Your task to perform on an android device: Show me productivity apps on the Play Store Image 0: 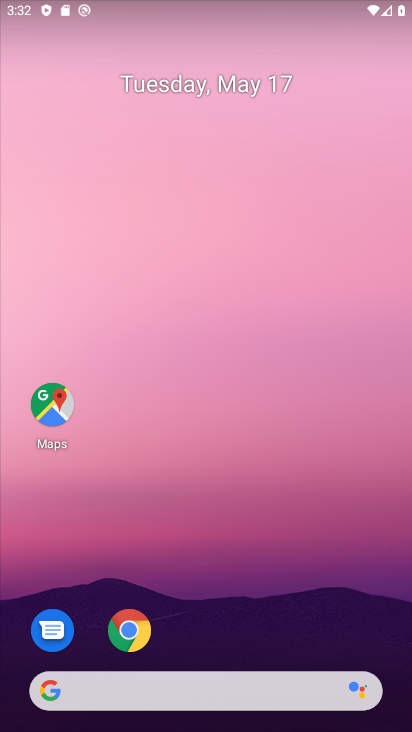
Step 0: drag from (181, 671) to (297, 233)
Your task to perform on an android device: Show me productivity apps on the Play Store Image 1: 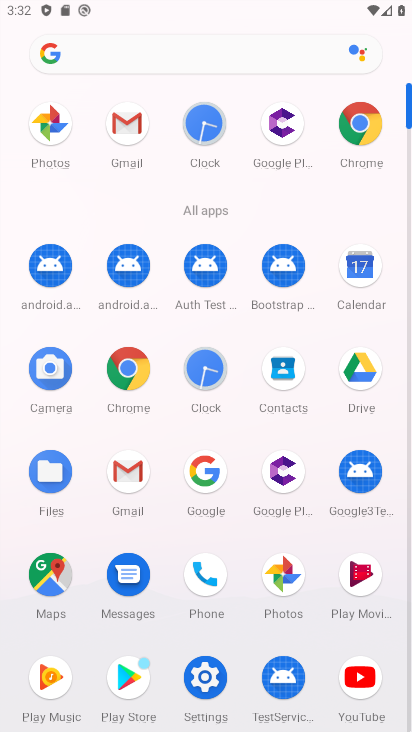
Step 1: click (129, 682)
Your task to perform on an android device: Show me productivity apps on the Play Store Image 2: 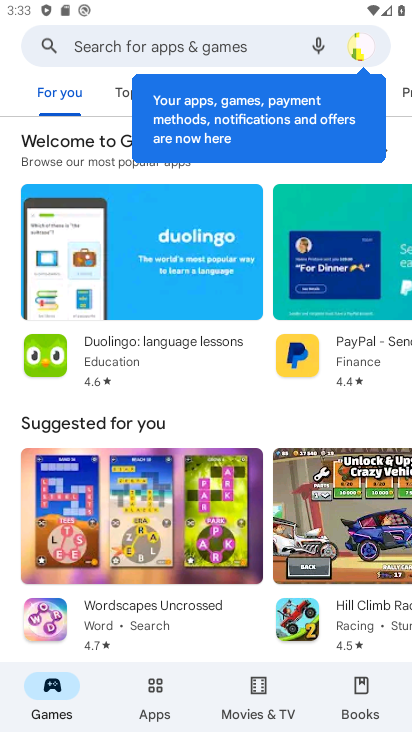
Step 2: click (166, 704)
Your task to perform on an android device: Show me productivity apps on the Play Store Image 3: 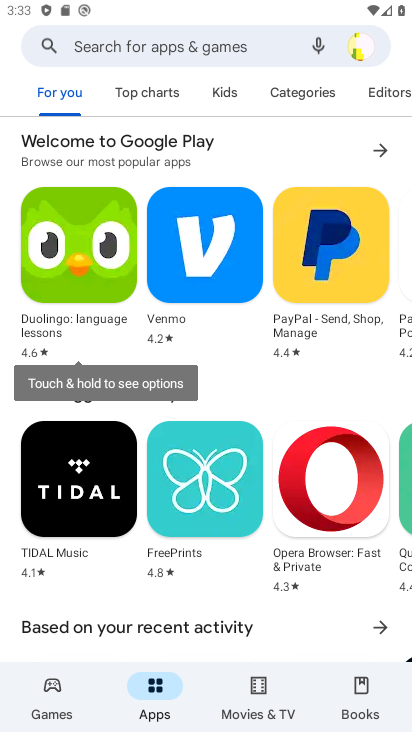
Step 3: drag from (354, 105) to (300, 101)
Your task to perform on an android device: Show me productivity apps on the Play Store Image 4: 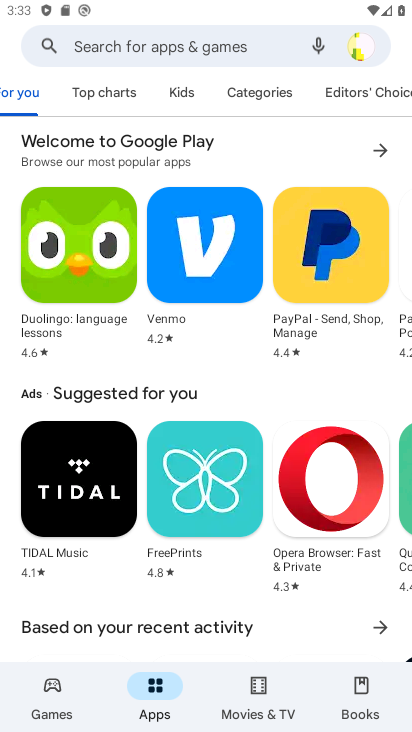
Step 4: click (292, 106)
Your task to perform on an android device: Show me productivity apps on the Play Store Image 5: 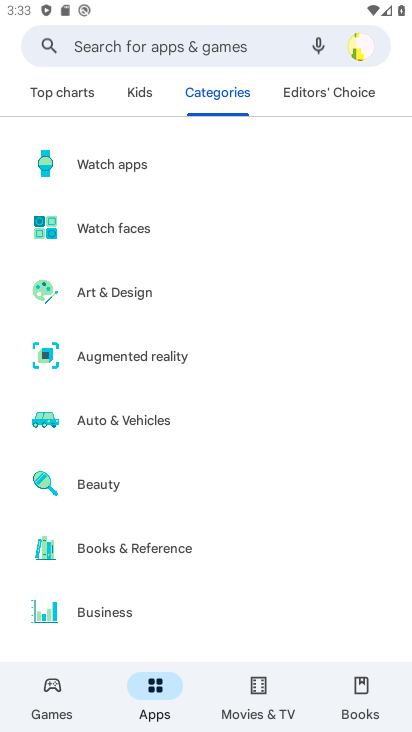
Step 5: drag from (180, 542) to (279, 146)
Your task to perform on an android device: Show me productivity apps on the Play Store Image 6: 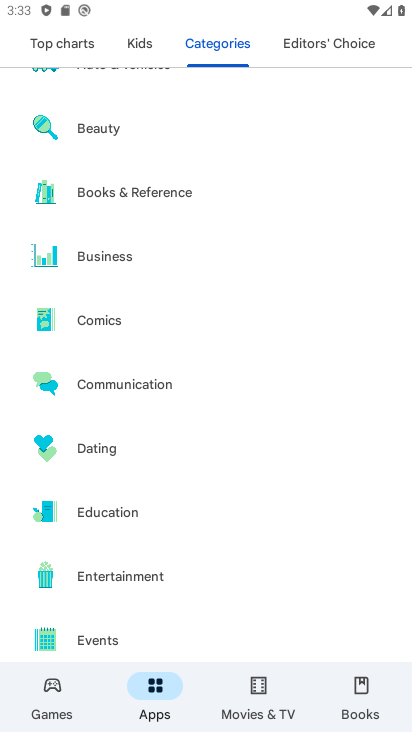
Step 6: drag from (249, 460) to (319, 106)
Your task to perform on an android device: Show me productivity apps on the Play Store Image 7: 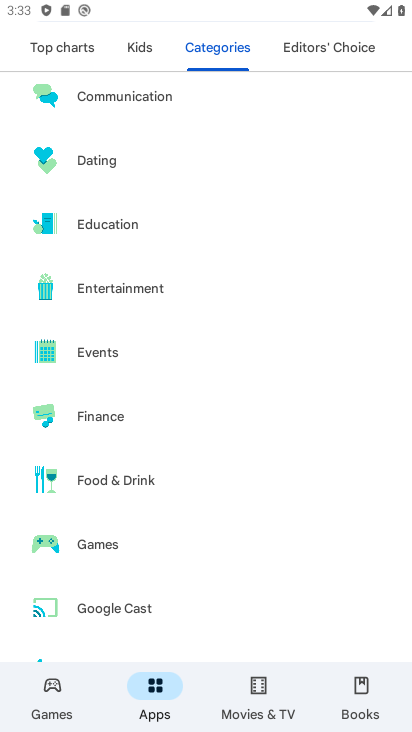
Step 7: drag from (185, 527) to (277, 193)
Your task to perform on an android device: Show me productivity apps on the Play Store Image 8: 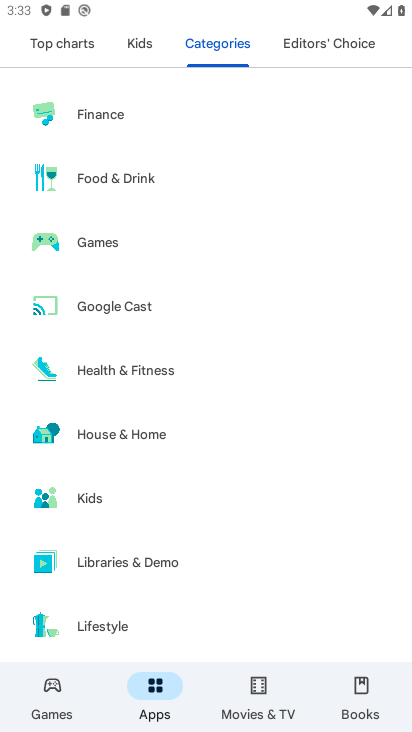
Step 8: drag from (176, 531) to (249, 139)
Your task to perform on an android device: Show me productivity apps on the Play Store Image 9: 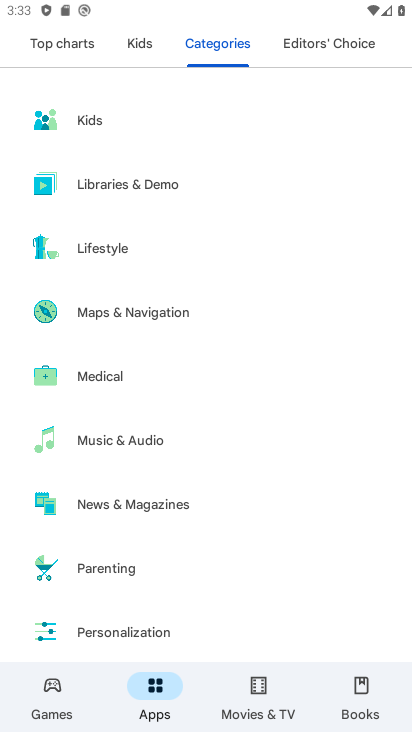
Step 9: drag from (176, 524) to (260, 139)
Your task to perform on an android device: Show me productivity apps on the Play Store Image 10: 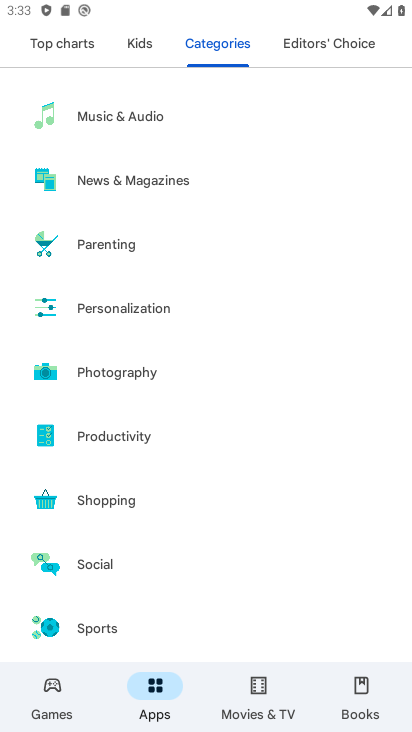
Step 10: click (188, 450)
Your task to perform on an android device: Show me productivity apps on the Play Store Image 11: 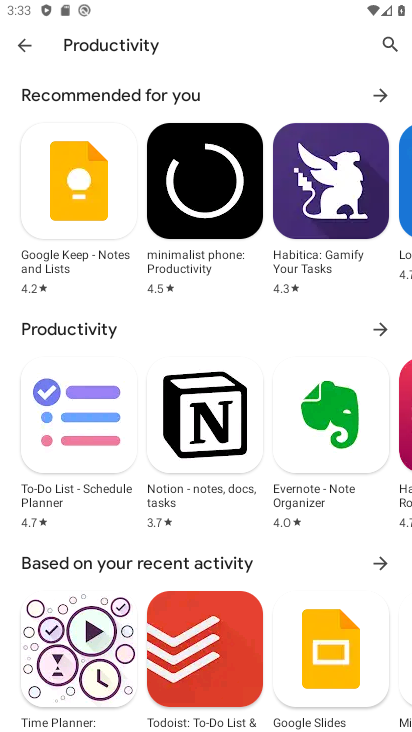
Step 11: task complete